Your task to perform on an android device: uninstall "Google Duo" Image 0: 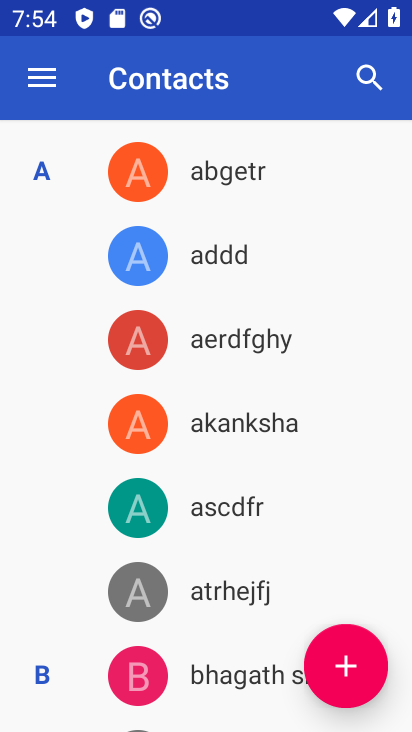
Step 0: press home button
Your task to perform on an android device: uninstall "Google Duo" Image 1: 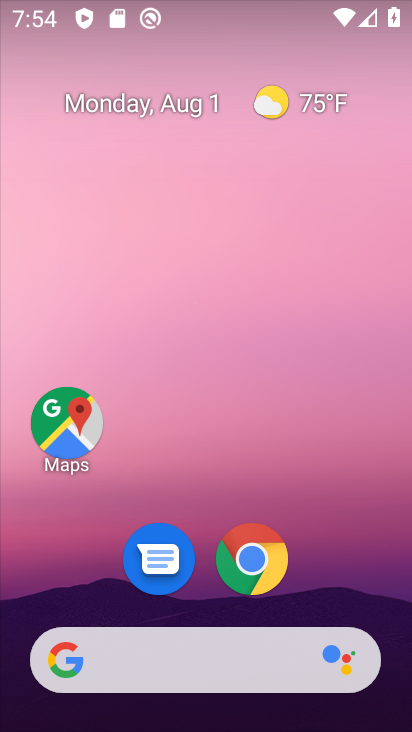
Step 1: drag from (217, 652) to (189, 143)
Your task to perform on an android device: uninstall "Google Duo" Image 2: 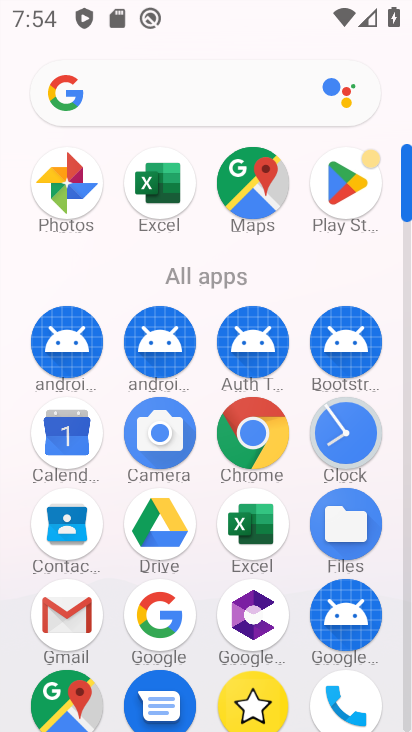
Step 2: click (350, 163)
Your task to perform on an android device: uninstall "Google Duo" Image 3: 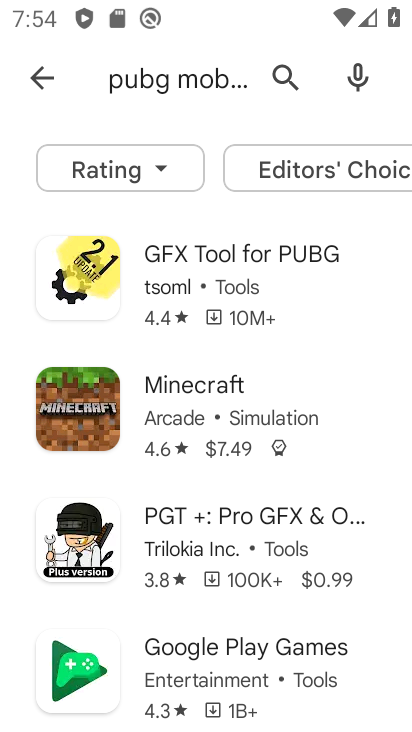
Step 3: drag from (288, 72) to (346, 72)
Your task to perform on an android device: uninstall "Google Duo" Image 4: 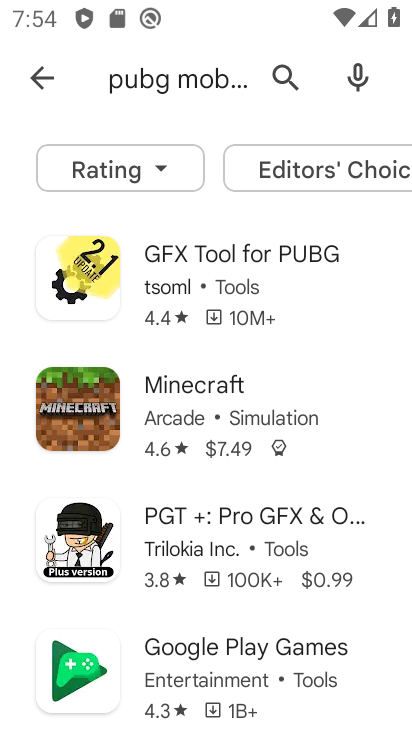
Step 4: click (271, 77)
Your task to perform on an android device: uninstall "Google Duo" Image 5: 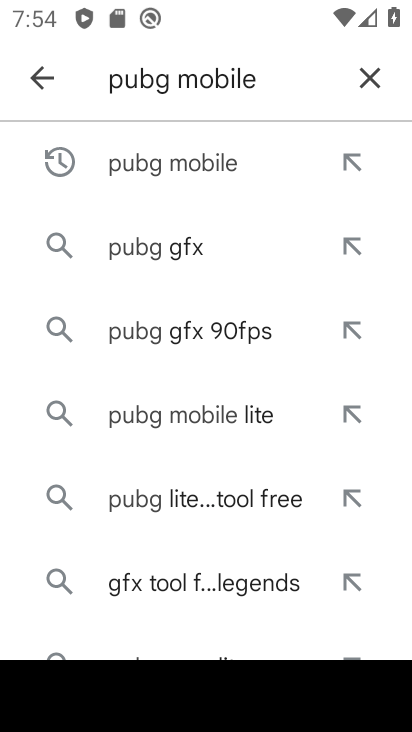
Step 5: click (372, 83)
Your task to perform on an android device: uninstall "Google Duo" Image 6: 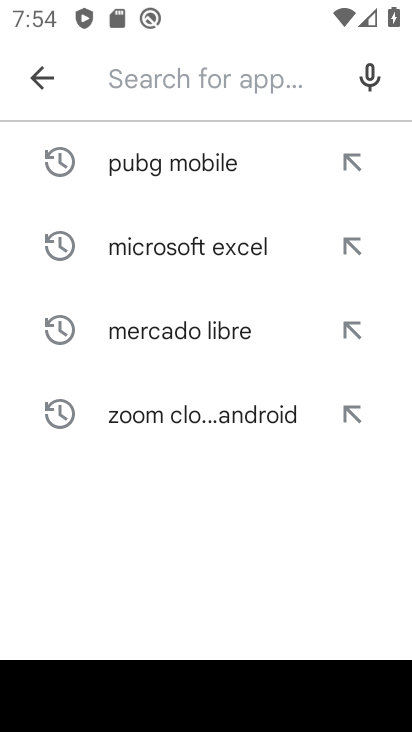
Step 6: type "google duo"
Your task to perform on an android device: uninstall "Google Duo" Image 7: 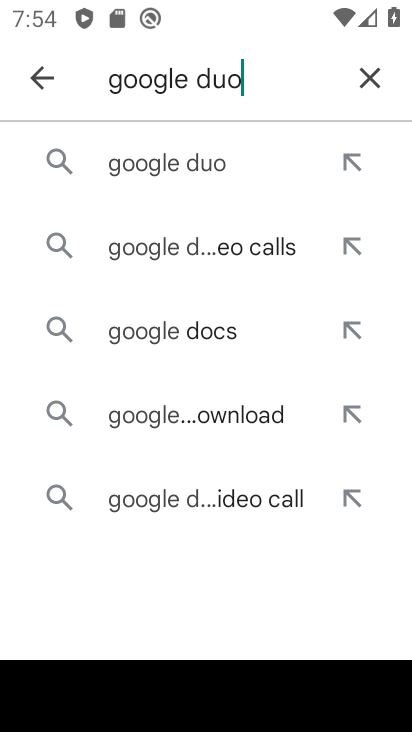
Step 7: click (150, 187)
Your task to perform on an android device: uninstall "Google Duo" Image 8: 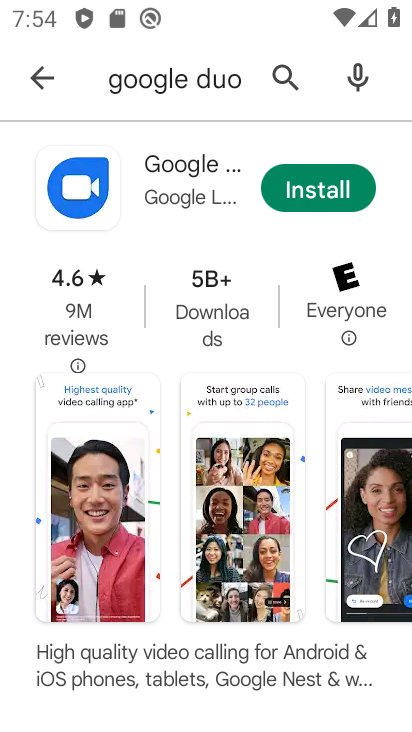
Step 8: task complete